Your task to perform on an android device: Open Google Chrome Image 0: 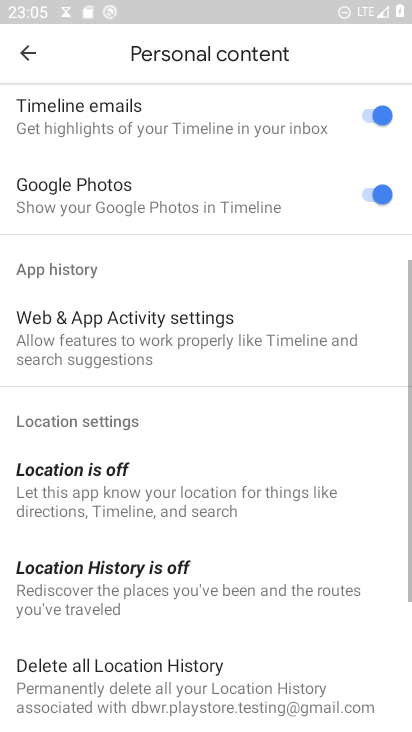
Step 0: drag from (242, 615) to (262, 518)
Your task to perform on an android device: Open Google Chrome Image 1: 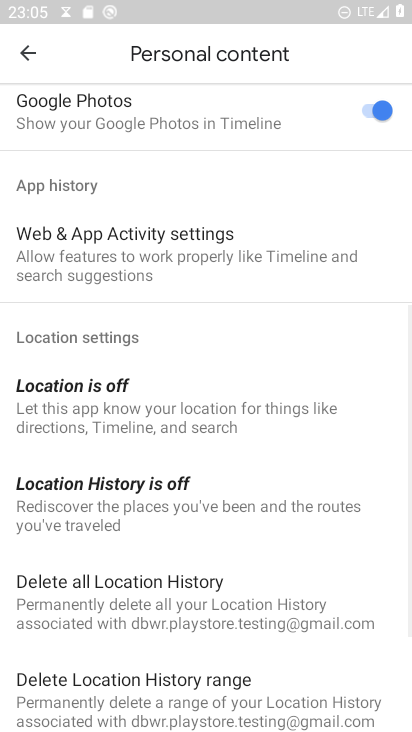
Step 1: press home button
Your task to perform on an android device: Open Google Chrome Image 2: 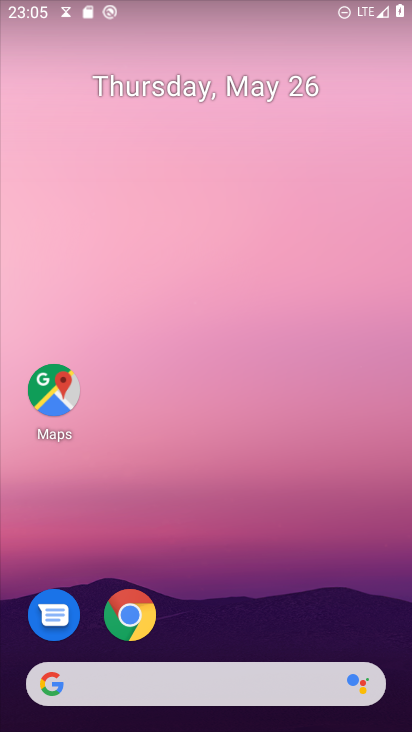
Step 2: click (130, 611)
Your task to perform on an android device: Open Google Chrome Image 3: 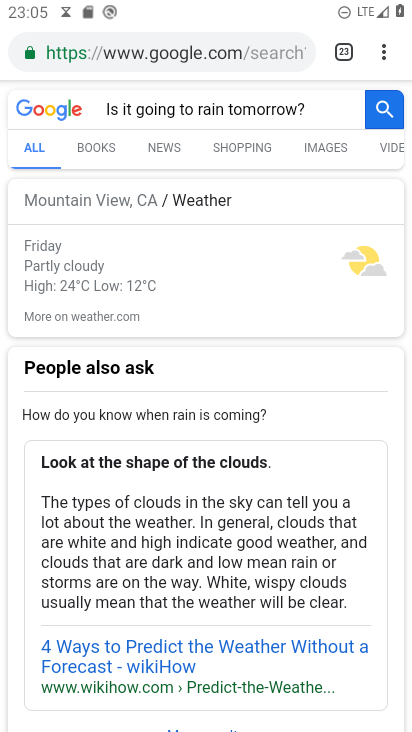
Step 3: task complete